Your task to perform on an android device: Open accessibility settings Image 0: 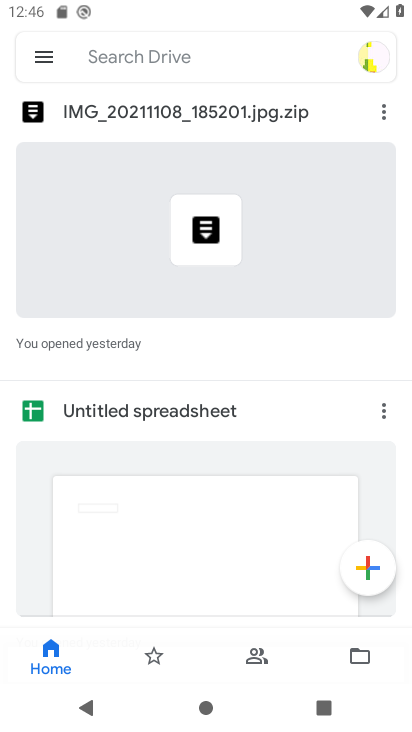
Step 0: press home button
Your task to perform on an android device: Open accessibility settings Image 1: 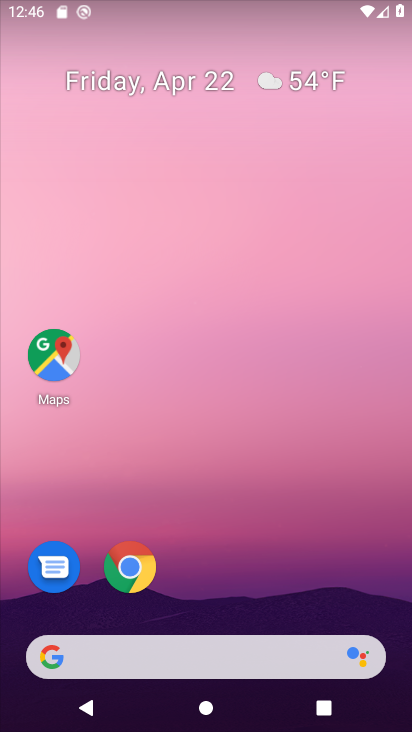
Step 1: drag from (259, 295) to (289, 177)
Your task to perform on an android device: Open accessibility settings Image 2: 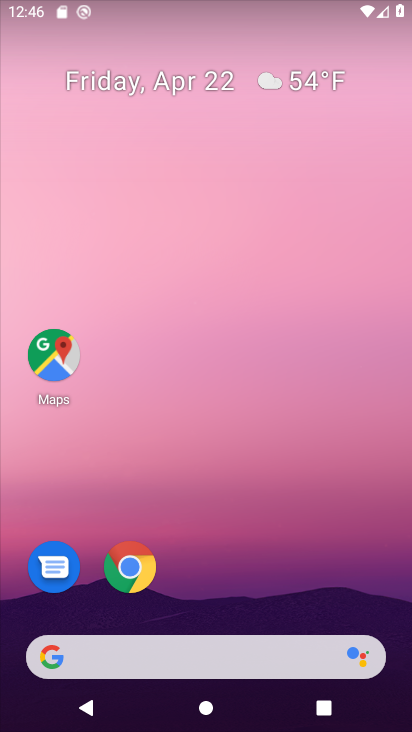
Step 2: drag from (240, 578) to (240, 233)
Your task to perform on an android device: Open accessibility settings Image 3: 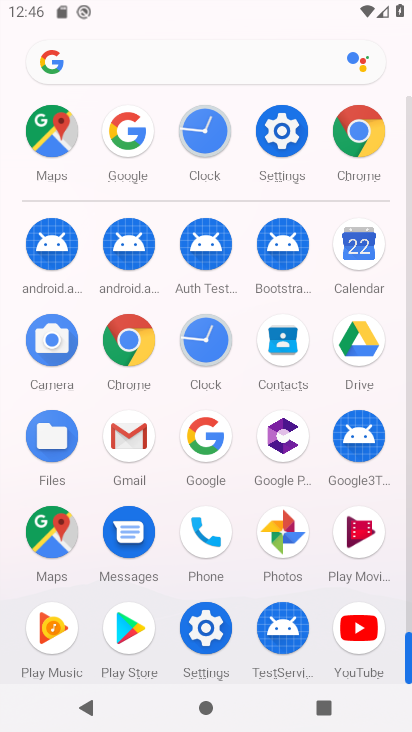
Step 3: click (284, 145)
Your task to perform on an android device: Open accessibility settings Image 4: 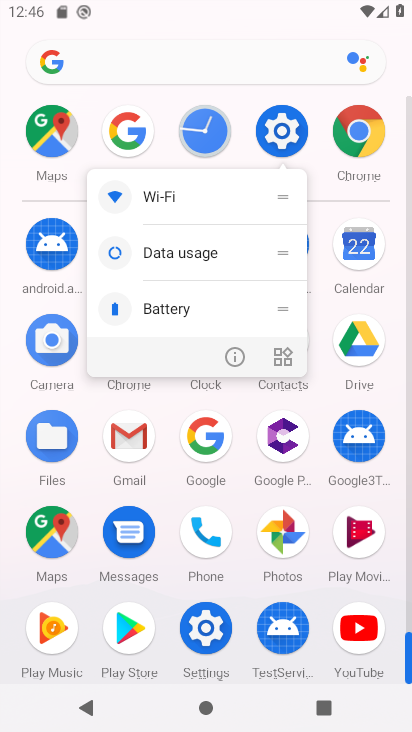
Step 4: click (283, 141)
Your task to perform on an android device: Open accessibility settings Image 5: 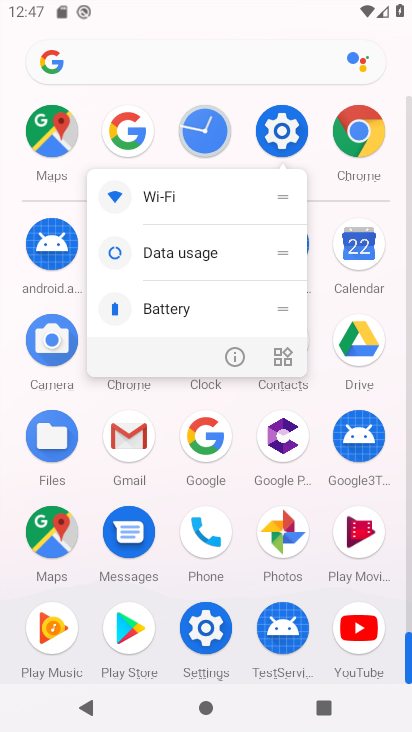
Step 5: click (282, 140)
Your task to perform on an android device: Open accessibility settings Image 6: 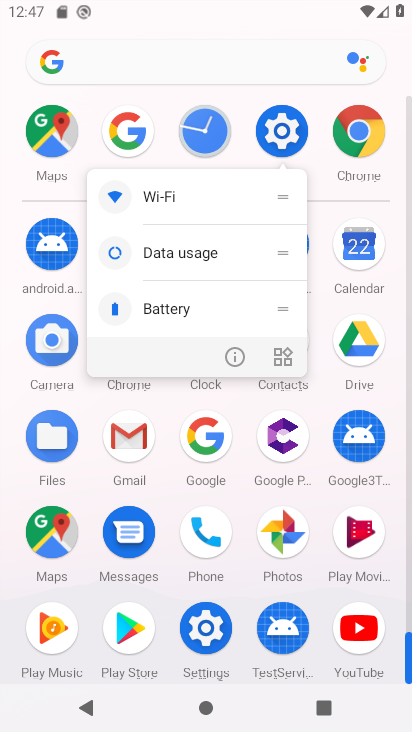
Step 6: click (296, 156)
Your task to perform on an android device: Open accessibility settings Image 7: 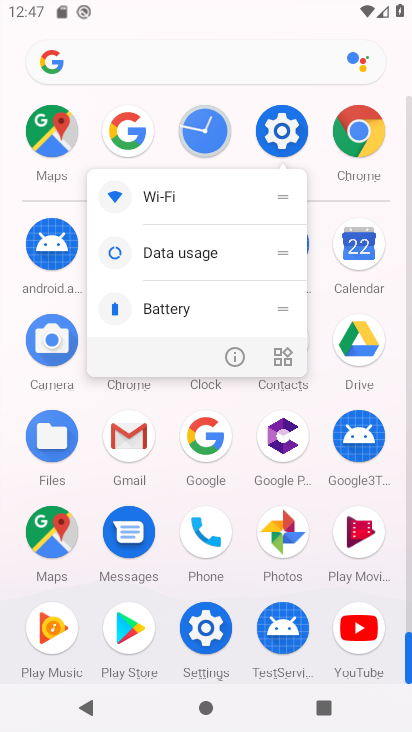
Step 7: click (293, 143)
Your task to perform on an android device: Open accessibility settings Image 8: 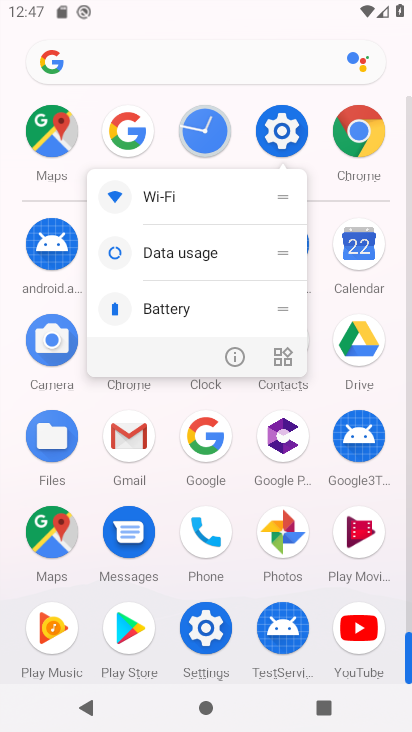
Step 8: click (287, 126)
Your task to perform on an android device: Open accessibility settings Image 9: 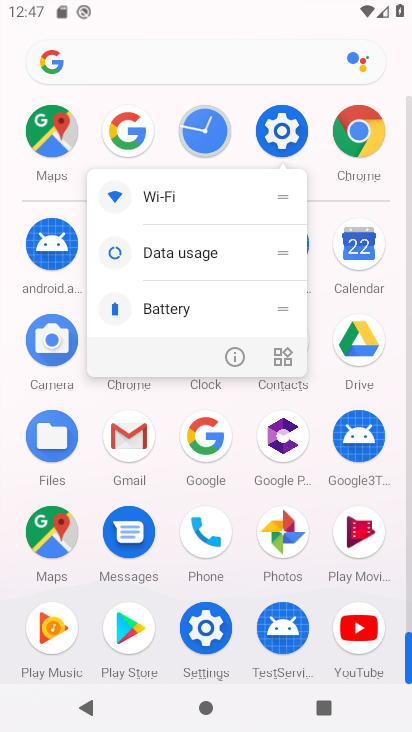
Step 9: click (287, 126)
Your task to perform on an android device: Open accessibility settings Image 10: 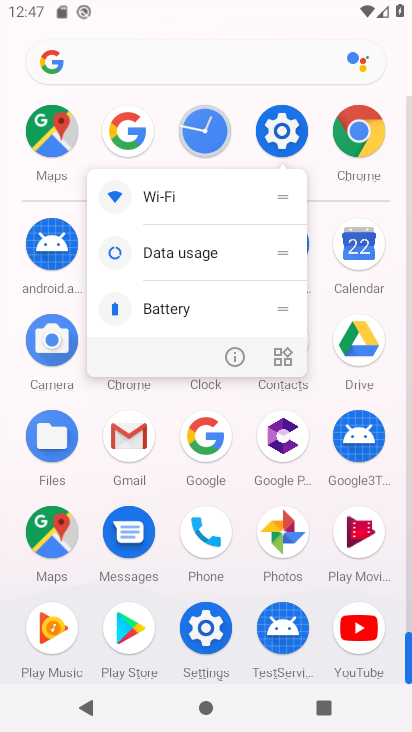
Step 10: click (287, 125)
Your task to perform on an android device: Open accessibility settings Image 11: 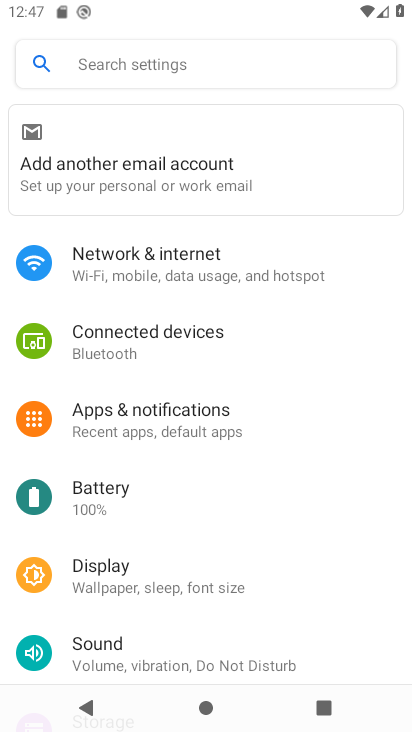
Step 11: drag from (196, 597) to (279, 233)
Your task to perform on an android device: Open accessibility settings Image 12: 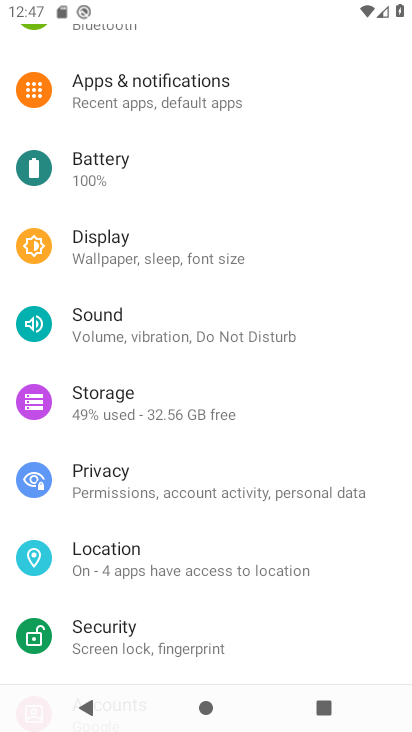
Step 12: drag from (209, 451) to (247, 158)
Your task to perform on an android device: Open accessibility settings Image 13: 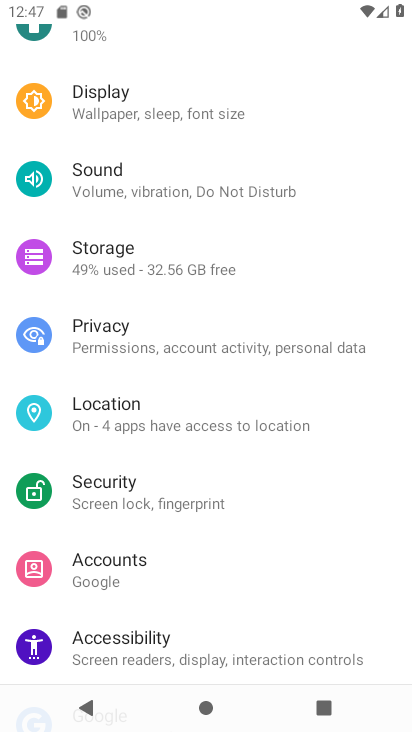
Step 13: click (158, 658)
Your task to perform on an android device: Open accessibility settings Image 14: 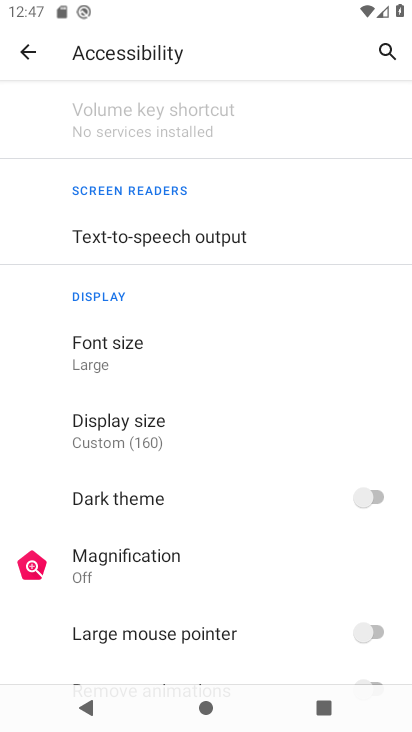
Step 14: task complete